Your task to perform on an android device: Open the stopwatch Image 0: 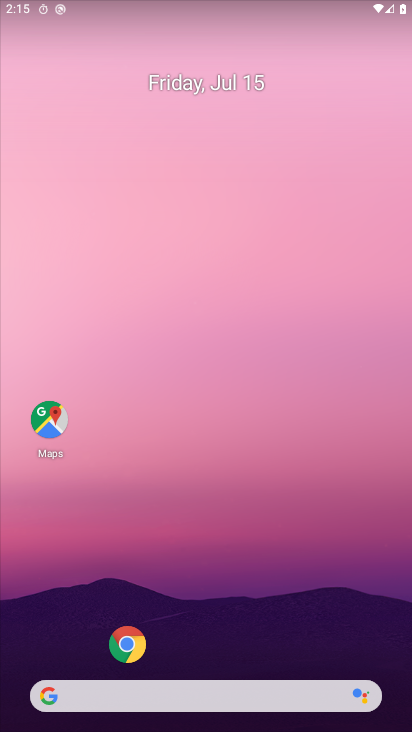
Step 0: drag from (45, 648) to (408, 180)
Your task to perform on an android device: Open the stopwatch Image 1: 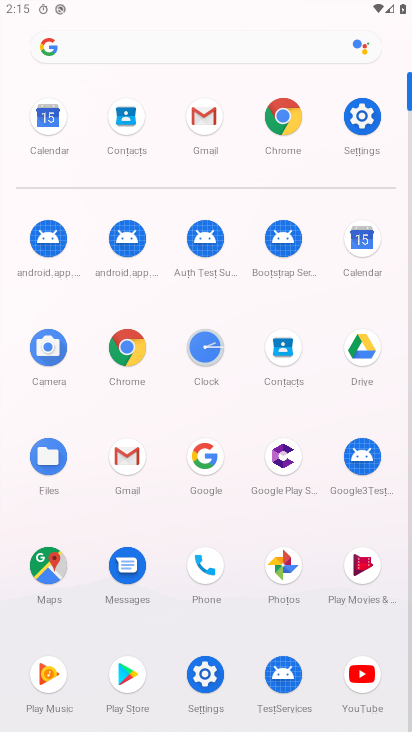
Step 1: click (197, 362)
Your task to perform on an android device: Open the stopwatch Image 2: 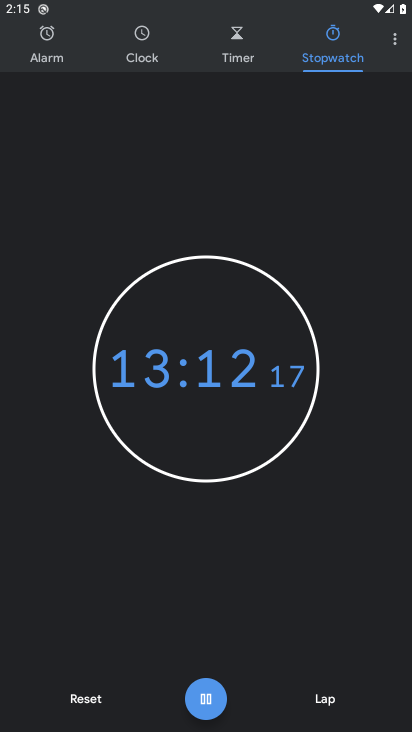
Step 2: click (207, 700)
Your task to perform on an android device: Open the stopwatch Image 3: 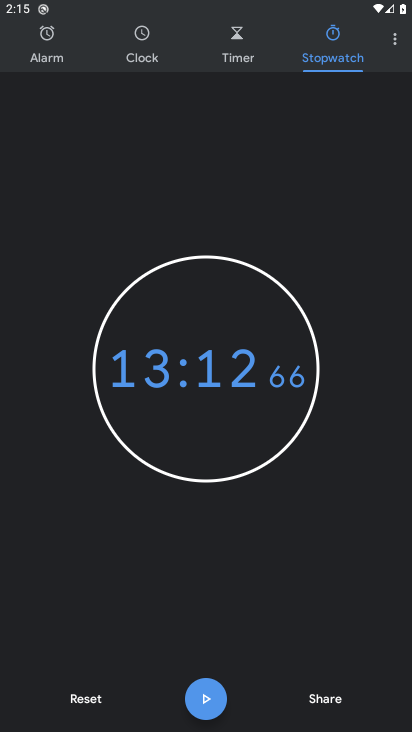
Step 3: task complete